Your task to perform on an android device: delete the emails in spam in the gmail app Image 0: 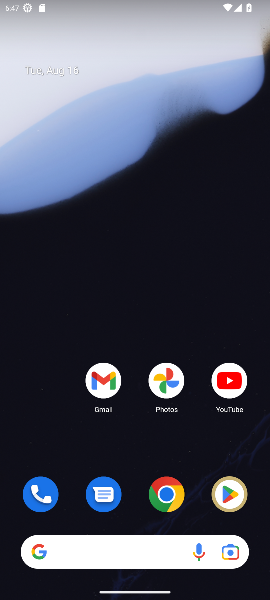
Step 0: drag from (47, 401) to (79, 120)
Your task to perform on an android device: delete the emails in spam in the gmail app Image 1: 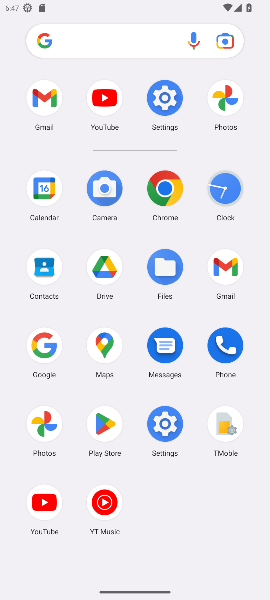
Step 1: click (222, 262)
Your task to perform on an android device: delete the emails in spam in the gmail app Image 2: 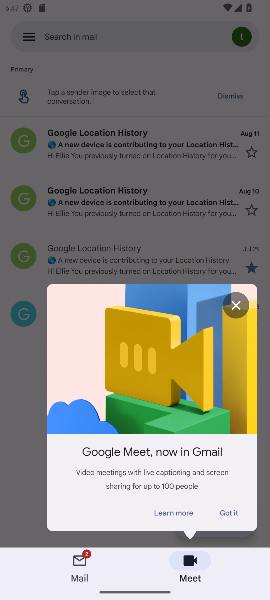
Step 2: task complete